Your task to perform on an android device: delete browsing data in the chrome app Image 0: 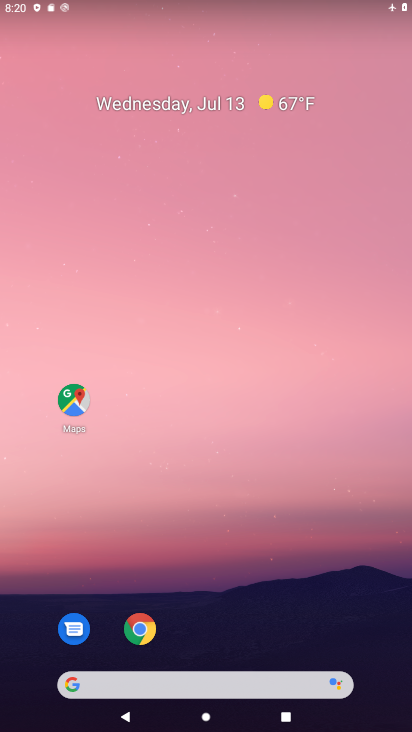
Step 0: drag from (226, 652) to (219, 80)
Your task to perform on an android device: delete browsing data in the chrome app Image 1: 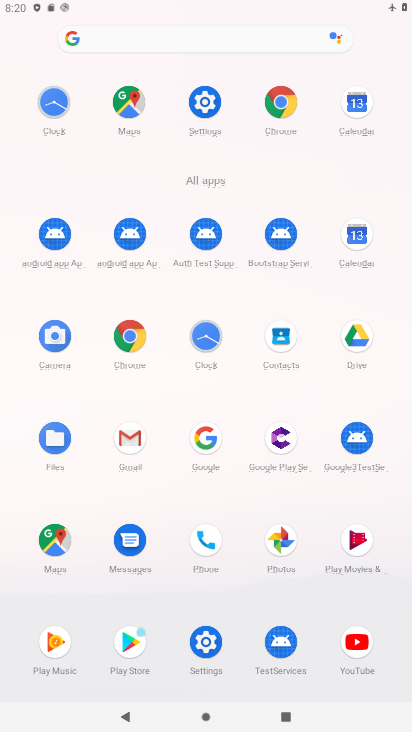
Step 1: click (128, 322)
Your task to perform on an android device: delete browsing data in the chrome app Image 2: 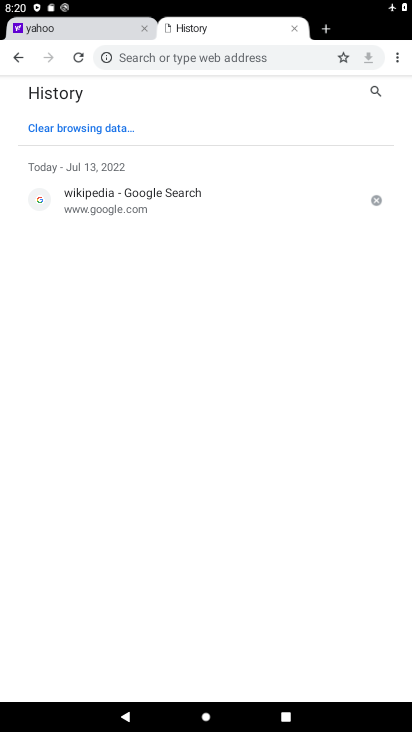
Step 2: click (103, 129)
Your task to perform on an android device: delete browsing data in the chrome app Image 3: 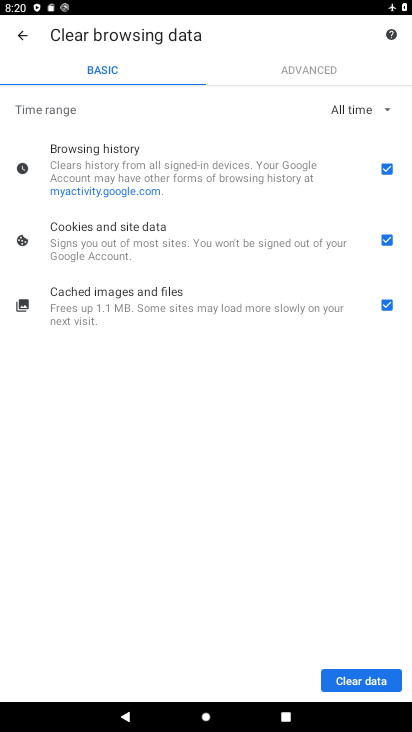
Step 3: click (354, 678)
Your task to perform on an android device: delete browsing data in the chrome app Image 4: 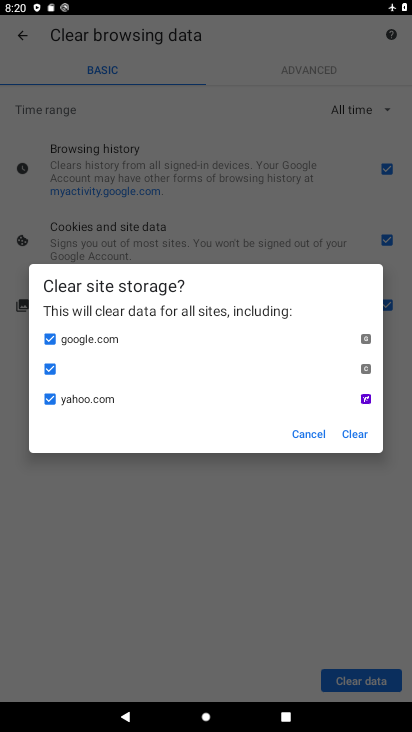
Step 4: click (356, 427)
Your task to perform on an android device: delete browsing data in the chrome app Image 5: 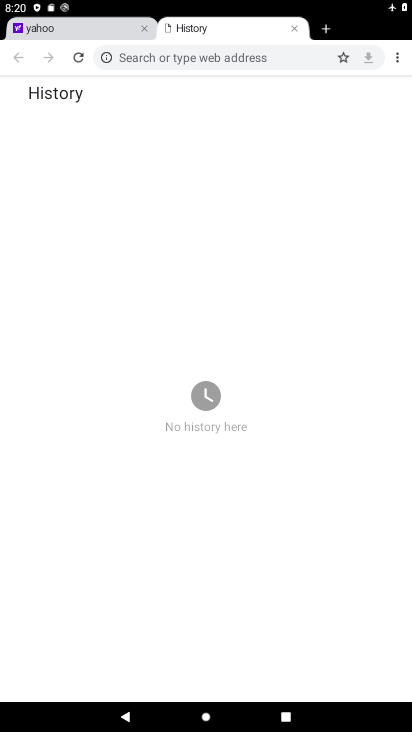
Step 5: task complete